Your task to perform on an android device: add a contact Image 0: 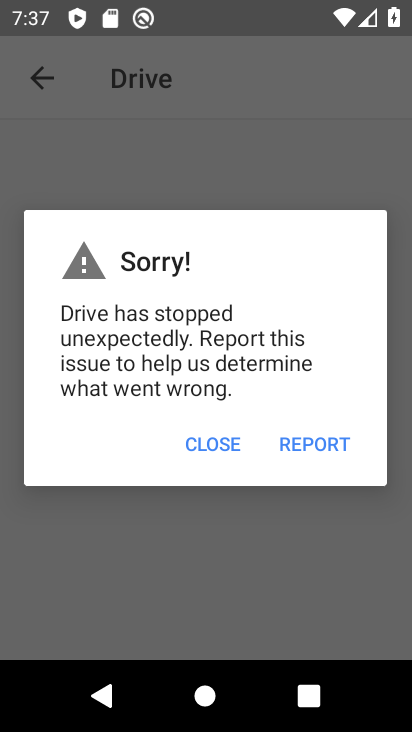
Step 0: press home button
Your task to perform on an android device: add a contact Image 1: 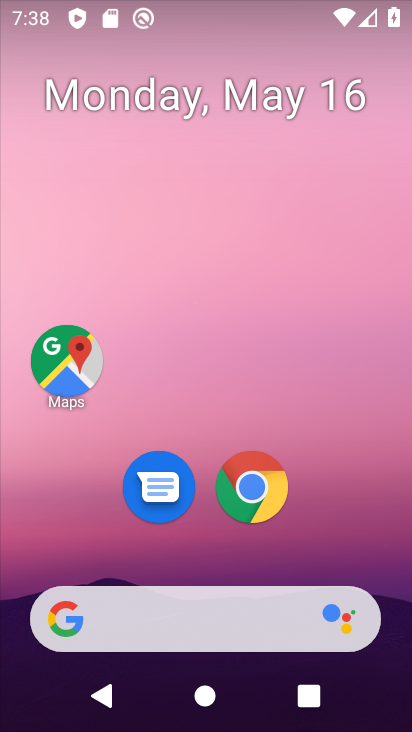
Step 1: drag from (299, 509) to (328, 22)
Your task to perform on an android device: add a contact Image 2: 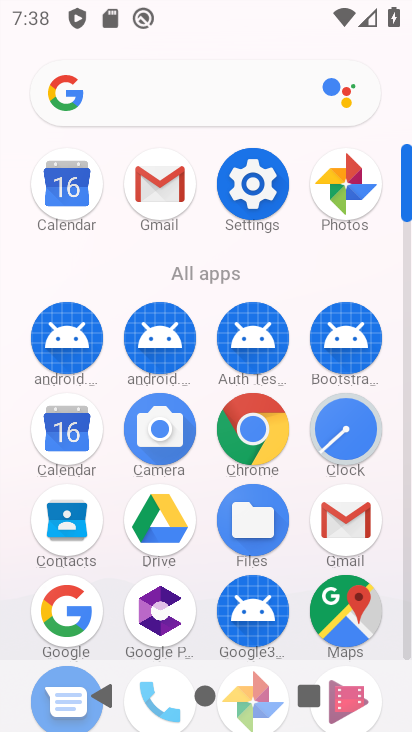
Step 2: click (85, 524)
Your task to perform on an android device: add a contact Image 3: 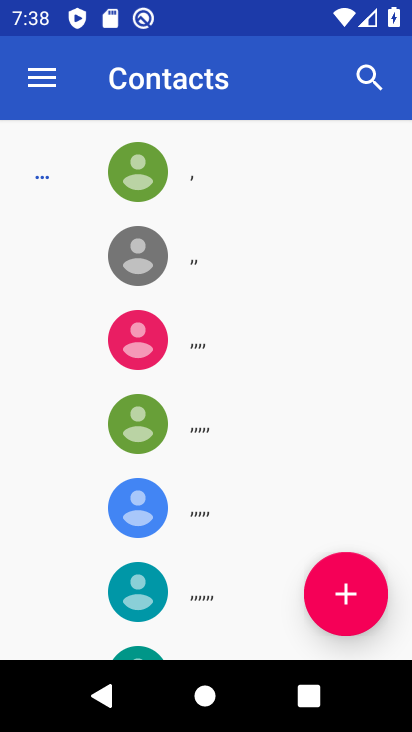
Step 3: click (340, 591)
Your task to perform on an android device: add a contact Image 4: 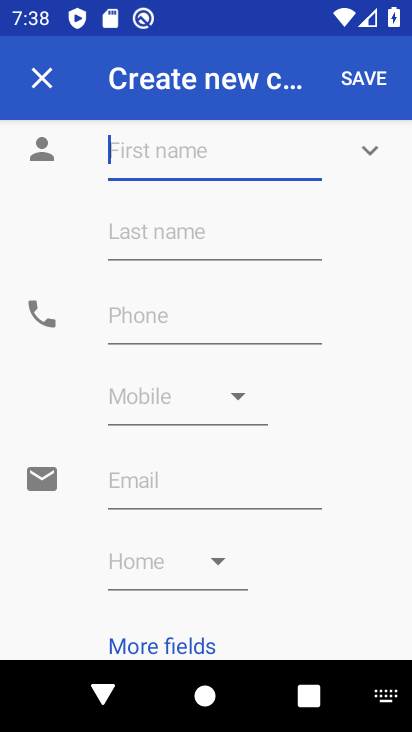
Step 4: type "Swami Vivekananda"
Your task to perform on an android device: add a contact Image 5: 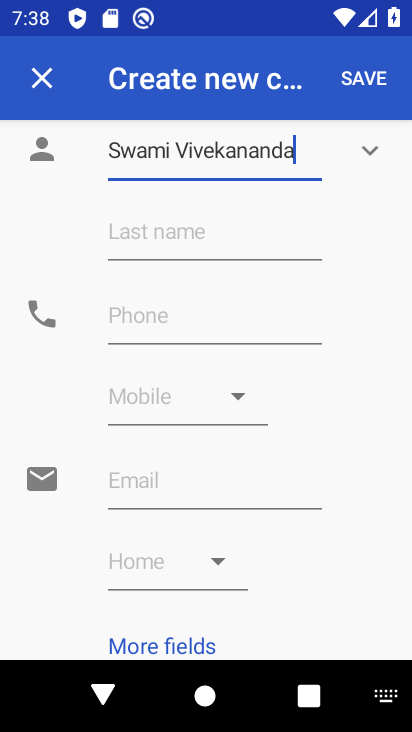
Step 5: click (210, 324)
Your task to perform on an android device: add a contact Image 6: 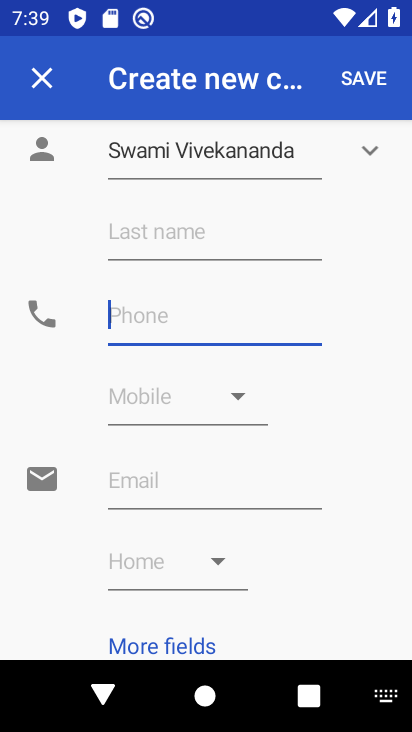
Step 6: type "919977553311"
Your task to perform on an android device: add a contact Image 7: 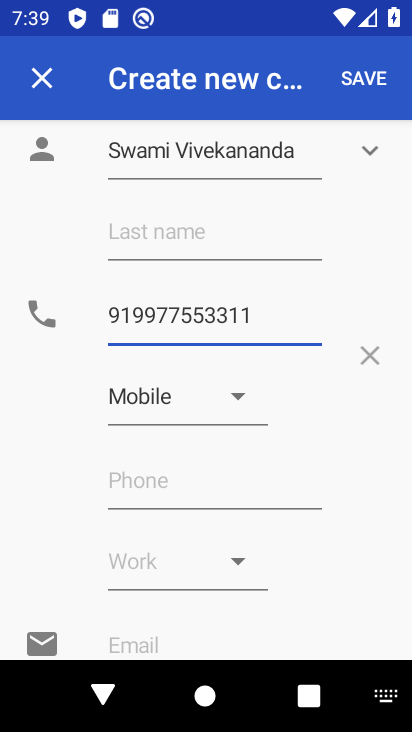
Step 7: click (373, 78)
Your task to perform on an android device: add a contact Image 8: 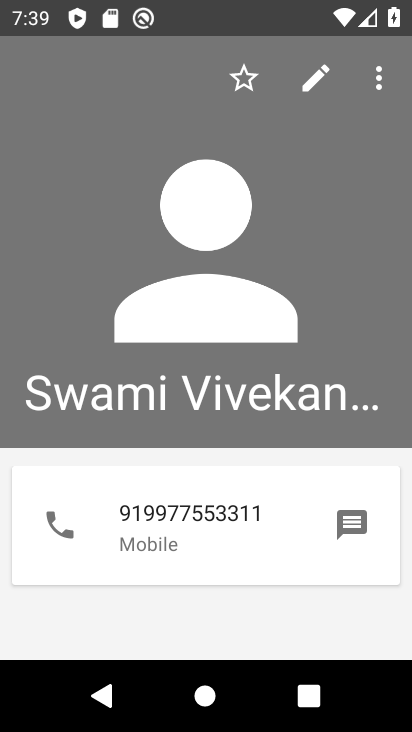
Step 8: task complete